Your task to perform on an android device: turn vacation reply on in the gmail app Image 0: 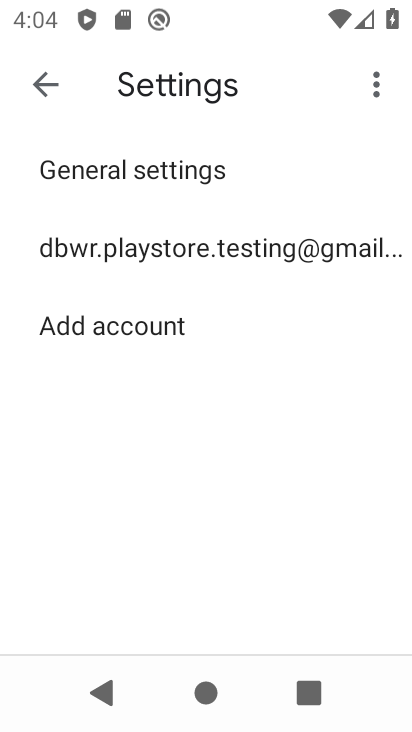
Step 0: click (159, 247)
Your task to perform on an android device: turn vacation reply on in the gmail app Image 1: 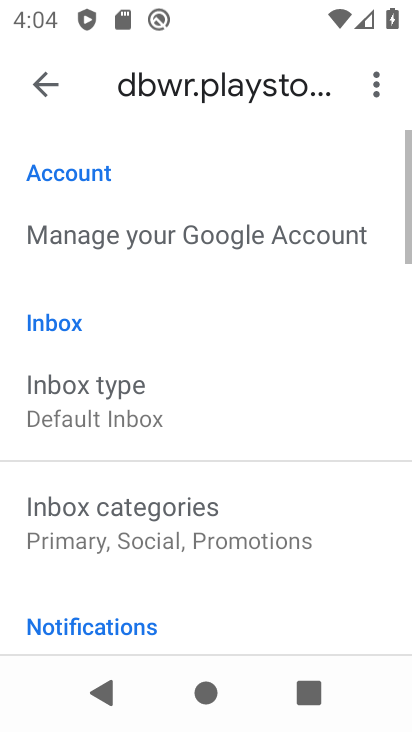
Step 1: drag from (128, 532) to (225, 80)
Your task to perform on an android device: turn vacation reply on in the gmail app Image 2: 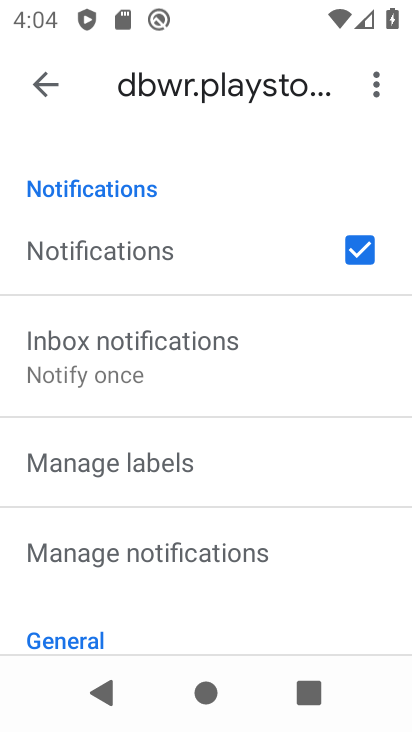
Step 2: drag from (180, 578) to (281, 96)
Your task to perform on an android device: turn vacation reply on in the gmail app Image 3: 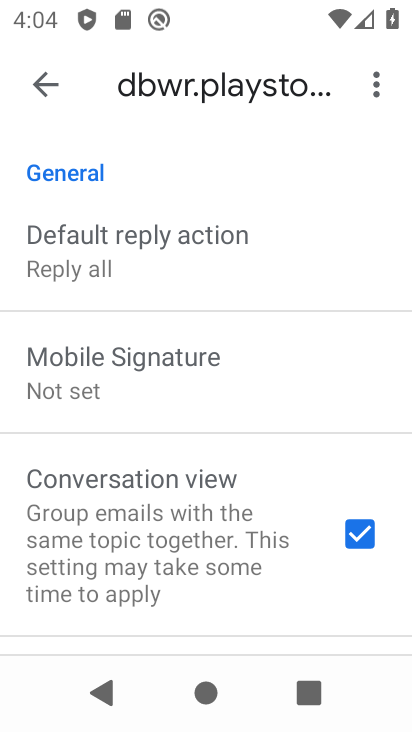
Step 3: drag from (201, 523) to (258, 169)
Your task to perform on an android device: turn vacation reply on in the gmail app Image 4: 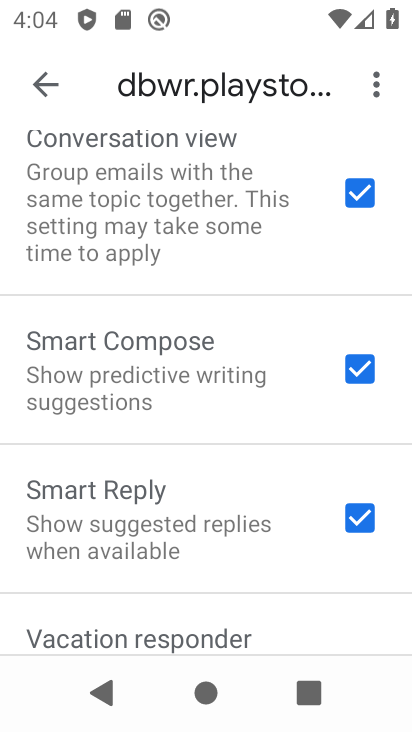
Step 4: drag from (220, 607) to (271, 318)
Your task to perform on an android device: turn vacation reply on in the gmail app Image 5: 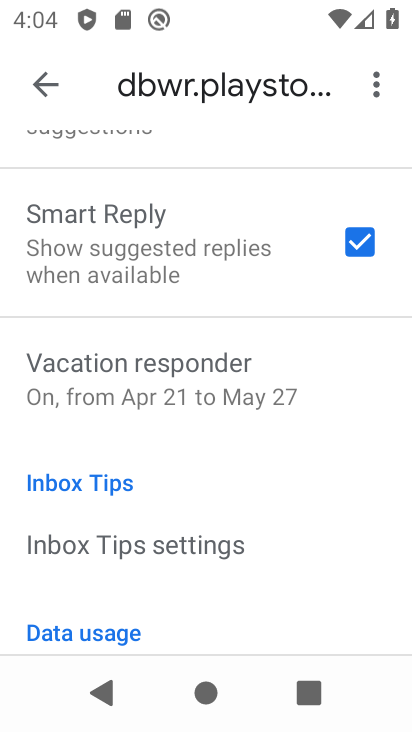
Step 5: click (180, 396)
Your task to perform on an android device: turn vacation reply on in the gmail app Image 6: 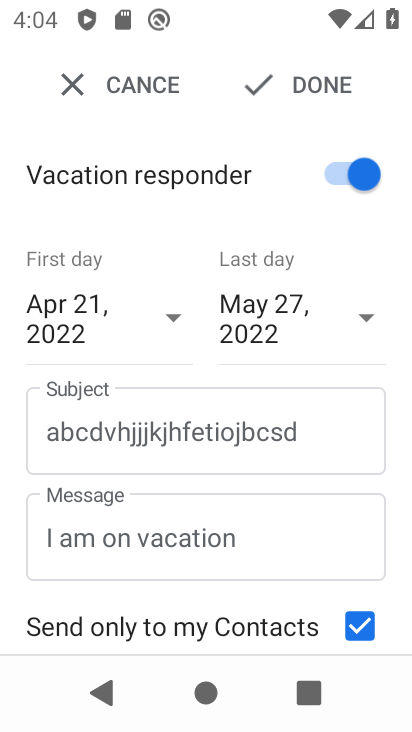
Step 6: task complete